Your task to perform on an android device: Go to internet settings Image 0: 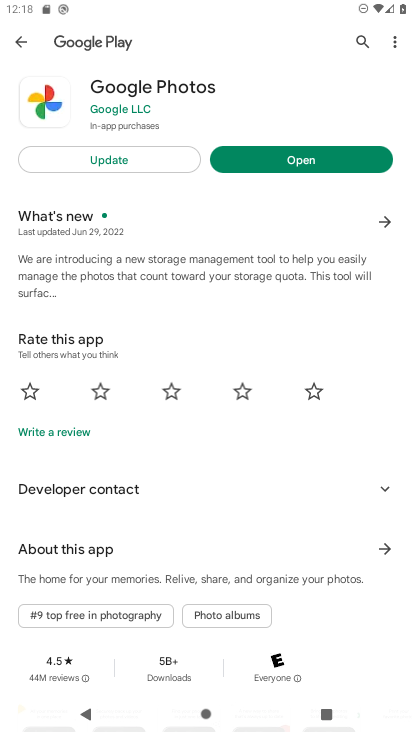
Step 0: drag from (209, 13) to (234, 236)
Your task to perform on an android device: Go to internet settings Image 1: 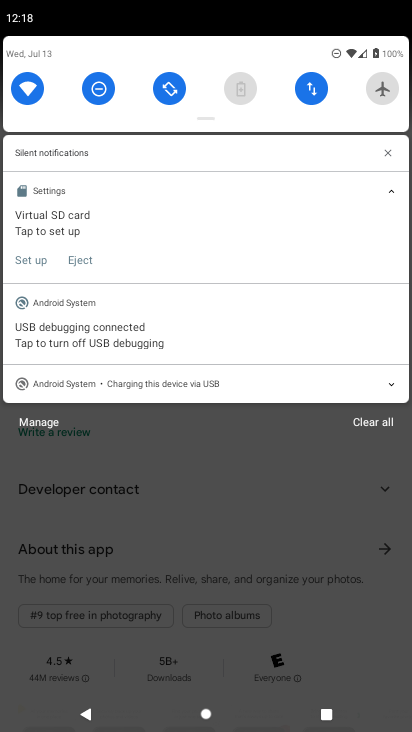
Step 1: click (319, 97)
Your task to perform on an android device: Go to internet settings Image 2: 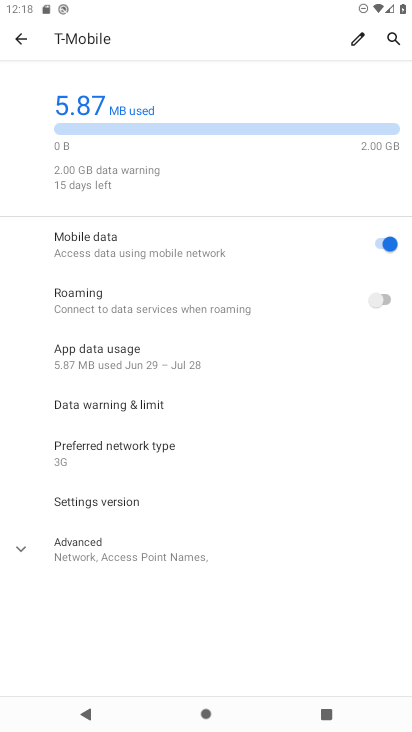
Step 2: task complete